Your task to perform on an android device: Do I have any events today? Image 0: 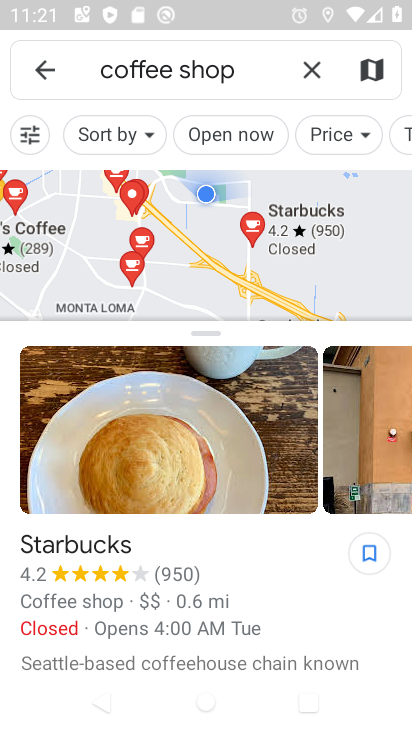
Step 0: press home button
Your task to perform on an android device: Do I have any events today? Image 1: 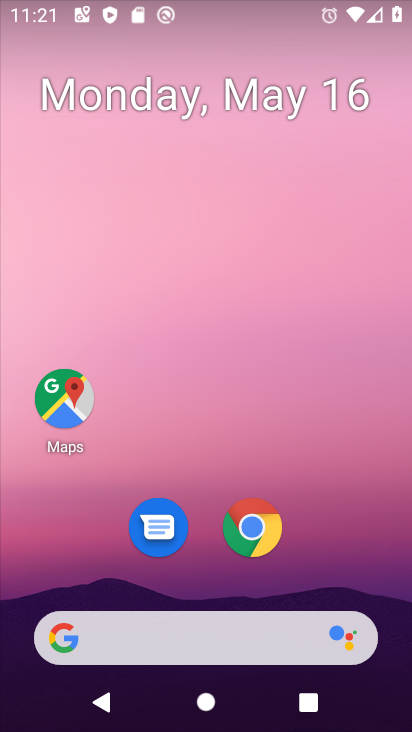
Step 1: drag from (360, 539) to (381, 79)
Your task to perform on an android device: Do I have any events today? Image 2: 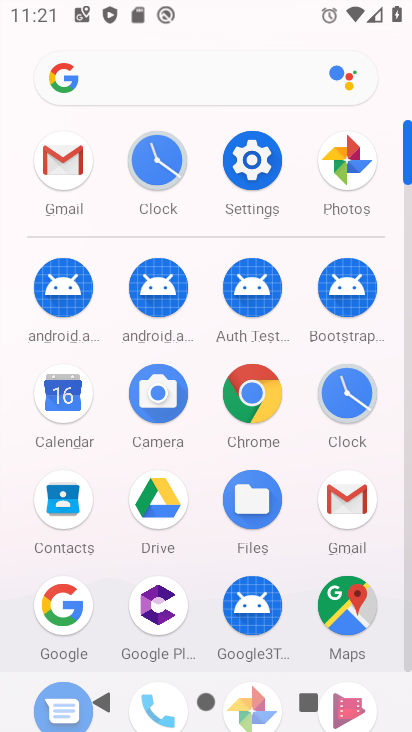
Step 2: click (70, 402)
Your task to perform on an android device: Do I have any events today? Image 3: 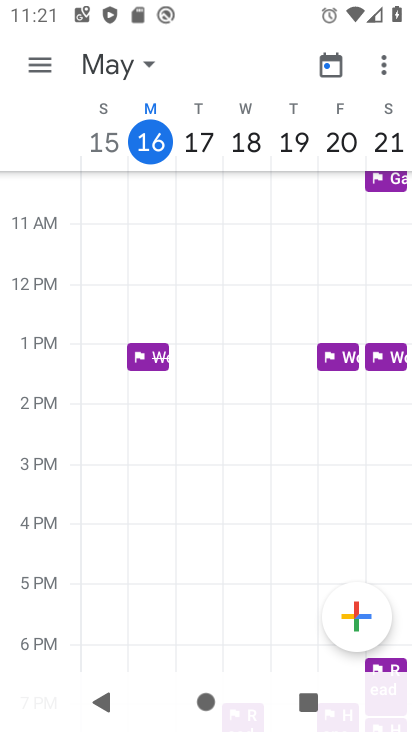
Step 3: click (35, 68)
Your task to perform on an android device: Do I have any events today? Image 4: 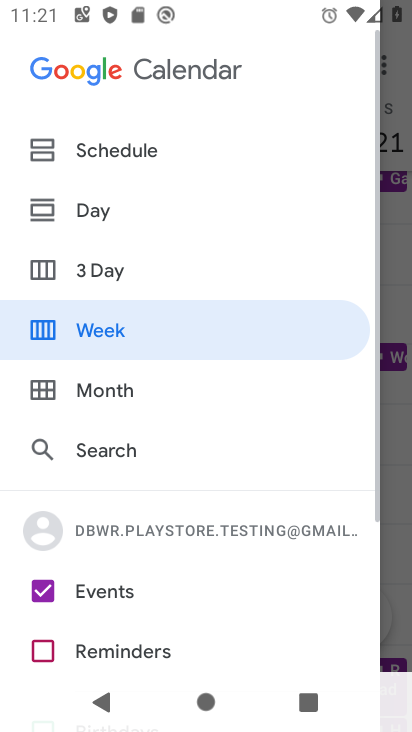
Step 4: click (100, 214)
Your task to perform on an android device: Do I have any events today? Image 5: 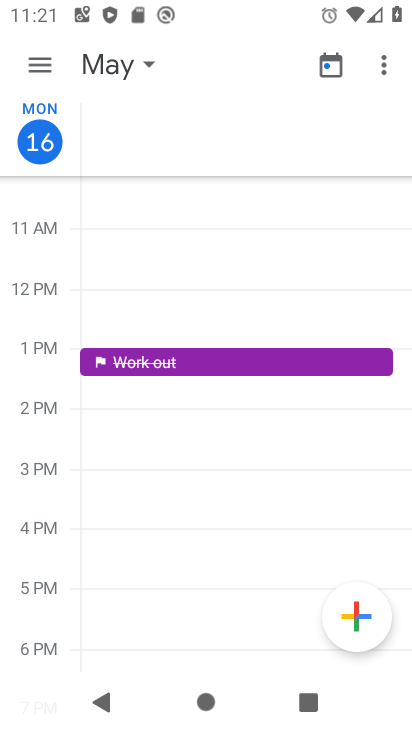
Step 5: task complete